Your task to perform on an android device: clear all cookies in the chrome app Image 0: 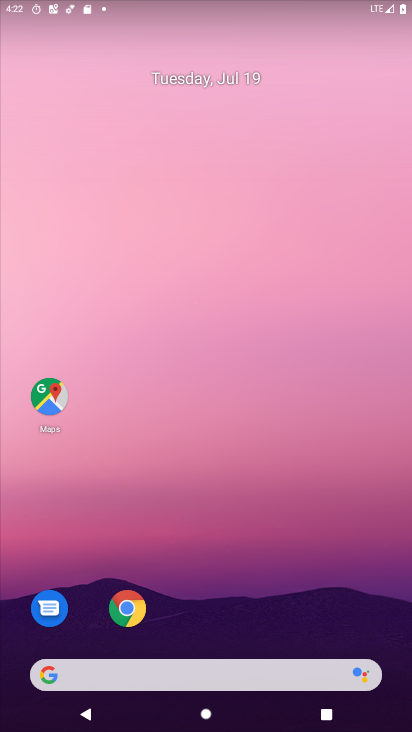
Step 0: click (127, 610)
Your task to perform on an android device: clear all cookies in the chrome app Image 1: 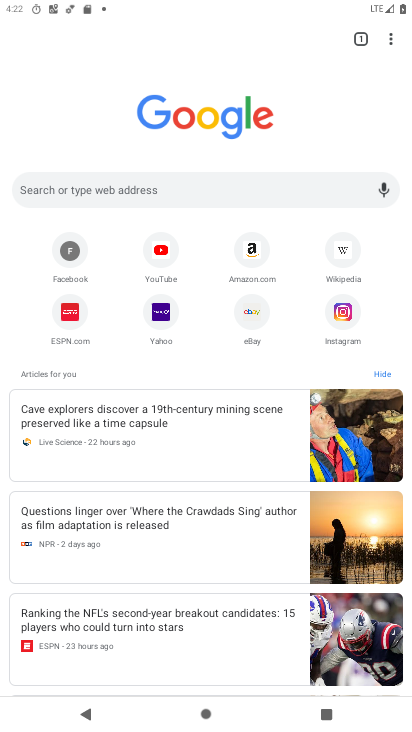
Step 1: click (391, 35)
Your task to perform on an android device: clear all cookies in the chrome app Image 2: 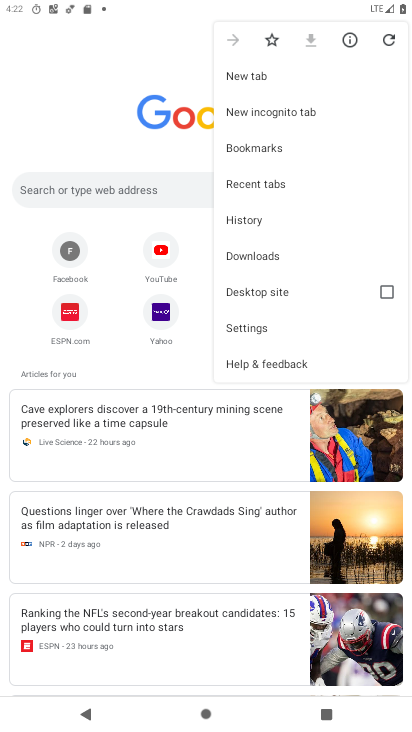
Step 2: click (250, 323)
Your task to perform on an android device: clear all cookies in the chrome app Image 3: 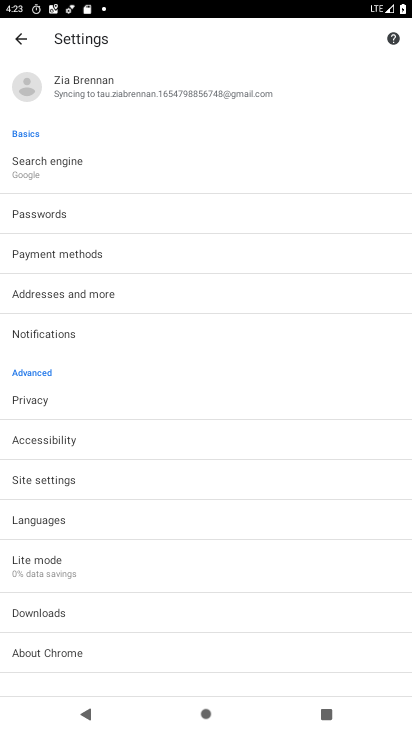
Step 3: click (42, 399)
Your task to perform on an android device: clear all cookies in the chrome app Image 4: 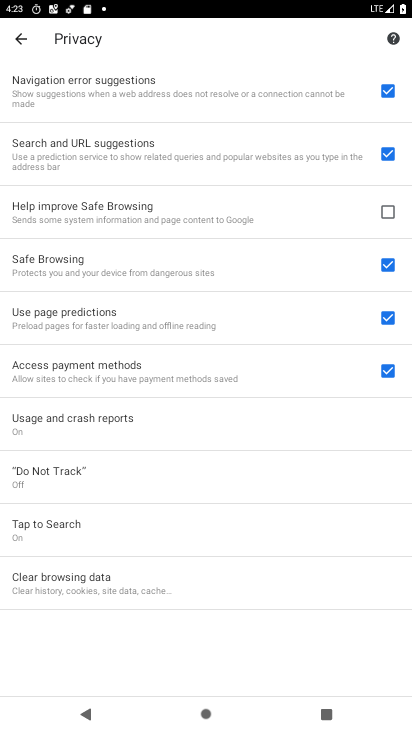
Step 4: click (75, 573)
Your task to perform on an android device: clear all cookies in the chrome app Image 5: 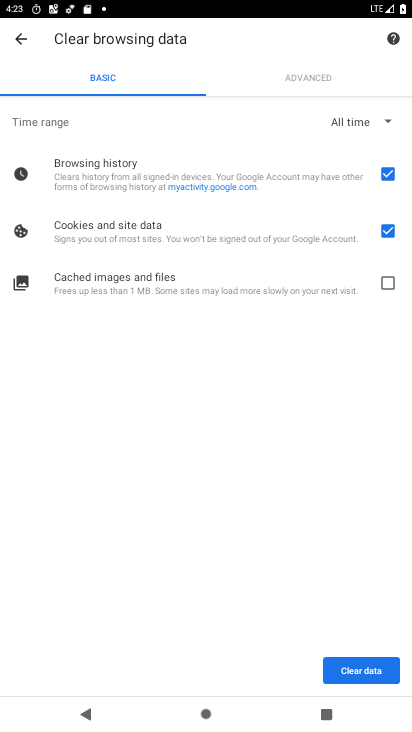
Step 5: click (386, 180)
Your task to perform on an android device: clear all cookies in the chrome app Image 6: 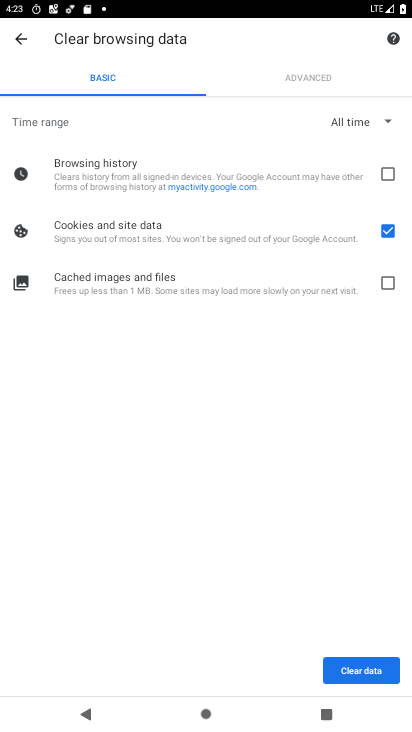
Step 6: click (353, 672)
Your task to perform on an android device: clear all cookies in the chrome app Image 7: 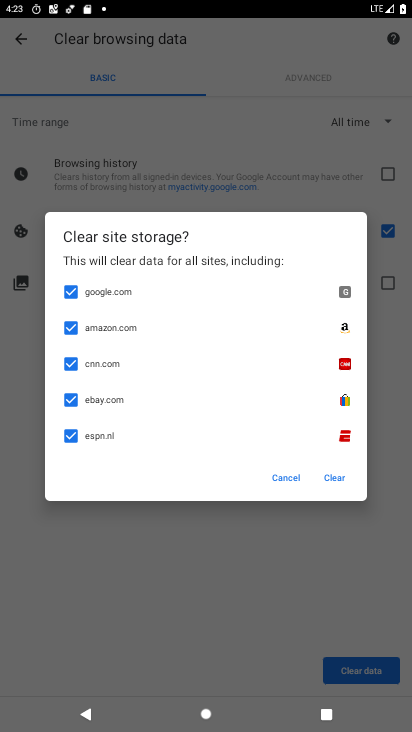
Step 7: click (335, 478)
Your task to perform on an android device: clear all cookies in the chrome app Image 8: 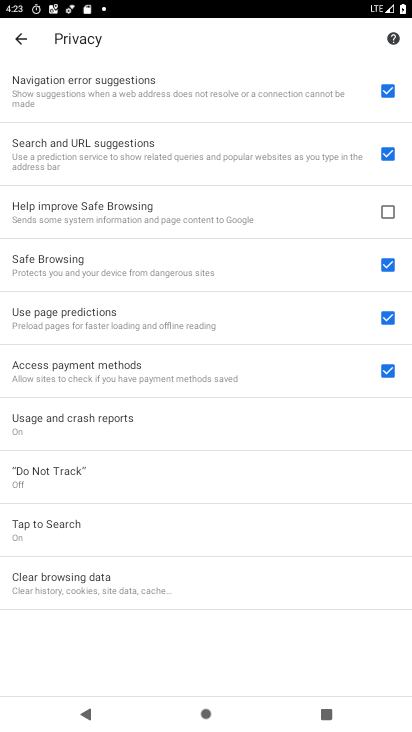
Step 8: task complete